Your task to perform on an android device: What's the weather going to be tomorrow? Image 0: 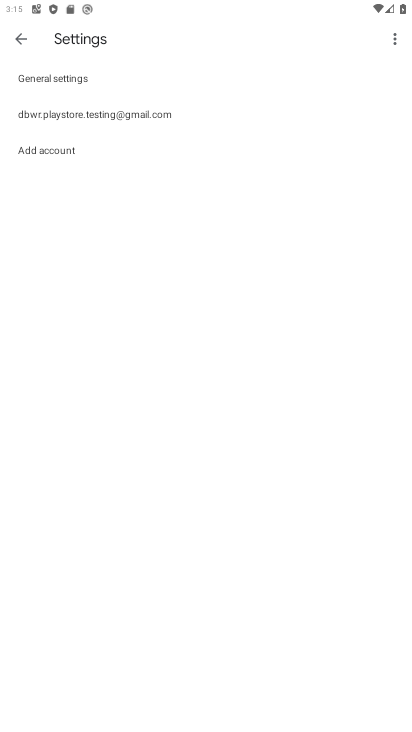
Step 0: press home button
Your task to perform on an android device: What's the weather going to be tomorrow? Image 1: 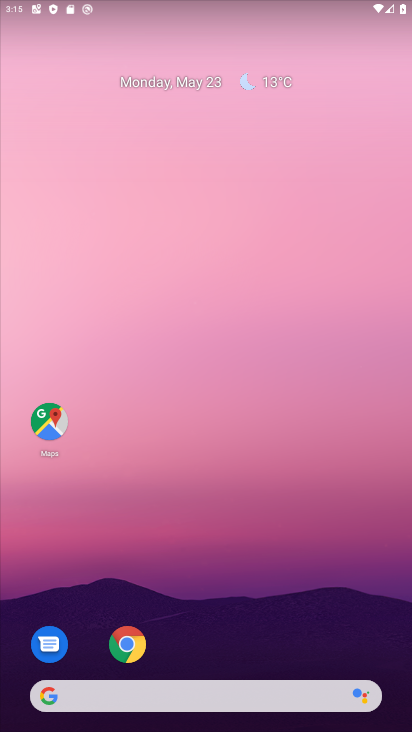
Step 1: click (267, 86)
Your task to perform on an android device: What's the weather going to be tomorrow? Image 2: 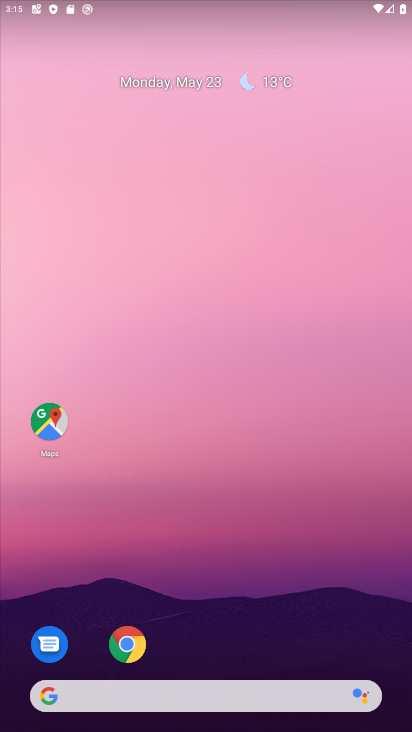
Step 2: click (273, 83)
Your task to perform on an android device: What's the weather going to be tomorrow? Image 3: 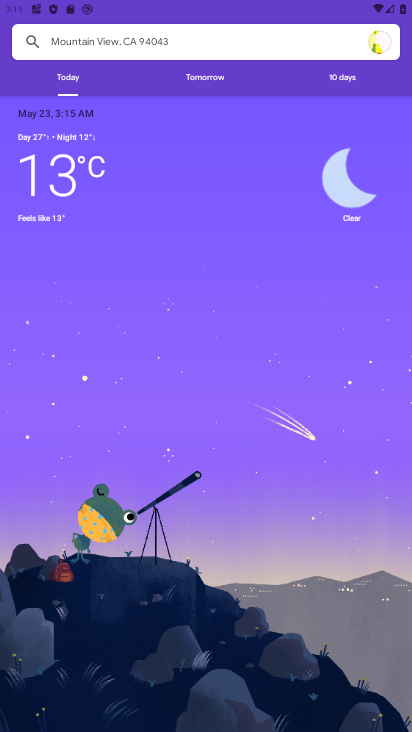
Step 3: click (221, 86)
Your task to perform on an android device: What's the weather going to be tomorrow? Image 4: 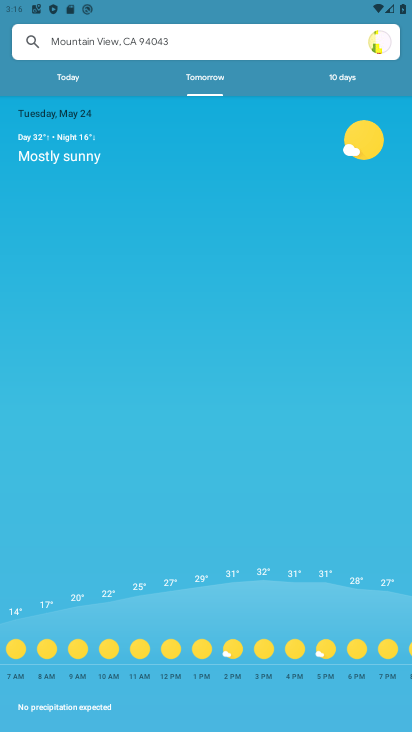
Step 4: task complete